Your task to perform on an android device: Open Wikipedia Image 0: 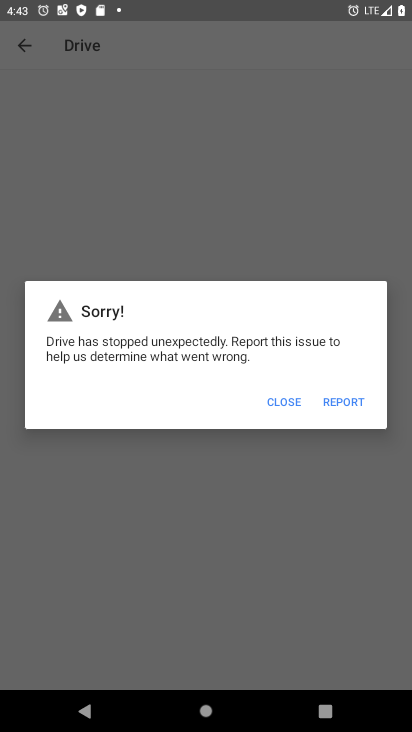
Step 0: press home button
Your task to perform on an android device: Open Wikipedia Image 1: 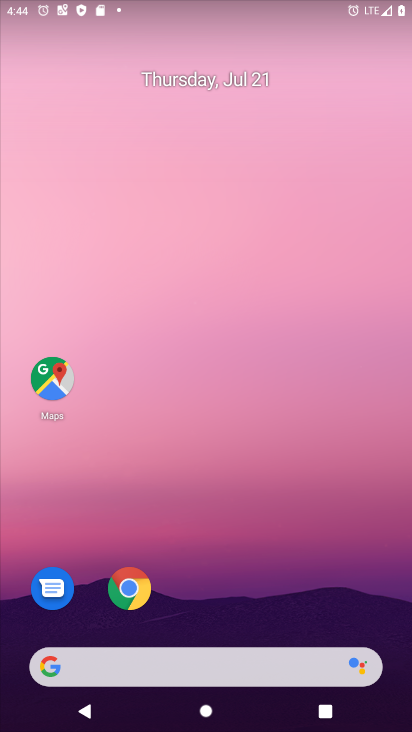
Step 1: click (111, 607)
Your task to perform on an android device: Open Wikipedia Image 2: 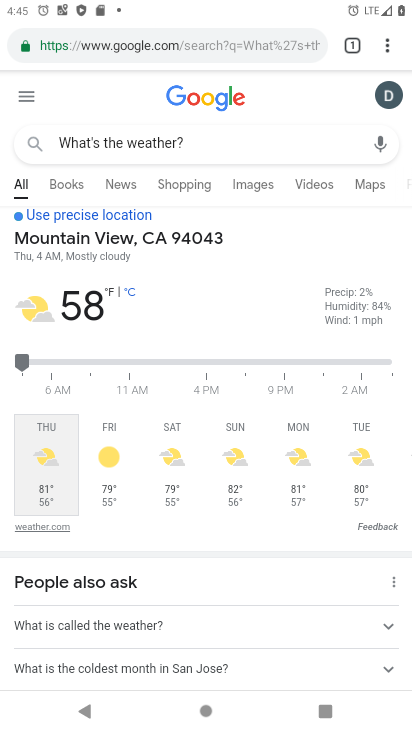
Step 2: click (194, 48)
Your task to perform on an android device: Open Wikipedia Image 3: 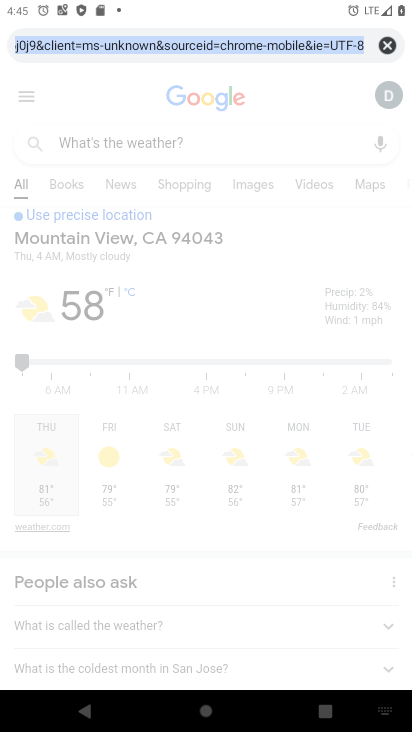
Step 3: type "Wikipedia"
Your task to perform on an android device: Open Wikipedia Image 4: 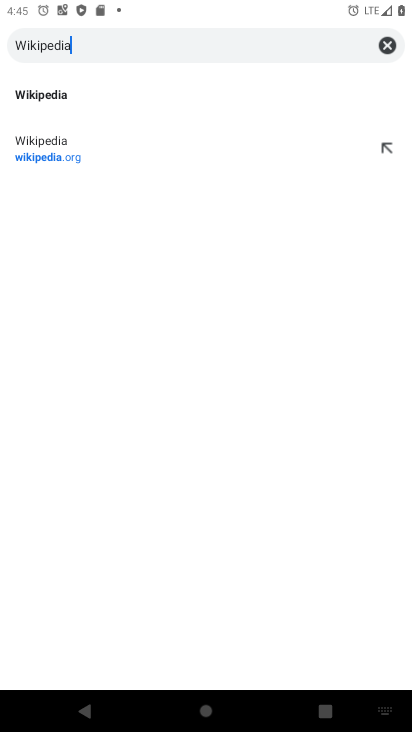
Step 4: type ""
Your task to perform on an android device: Open Wikipedia Image 5: 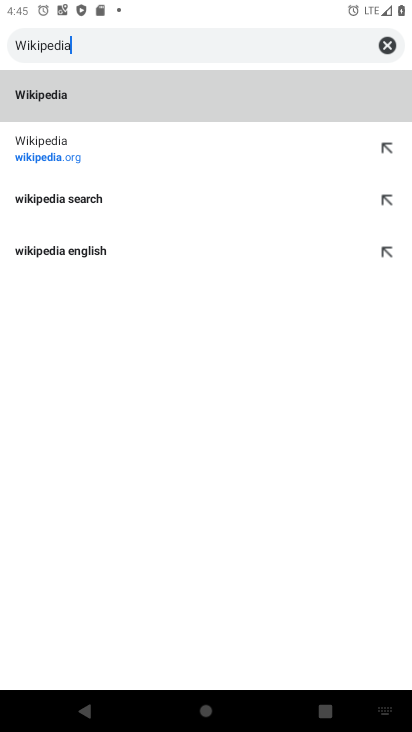
Step 5: click (20, 158)
Your task to perform on an android device: Open Wikipedia Image 6: 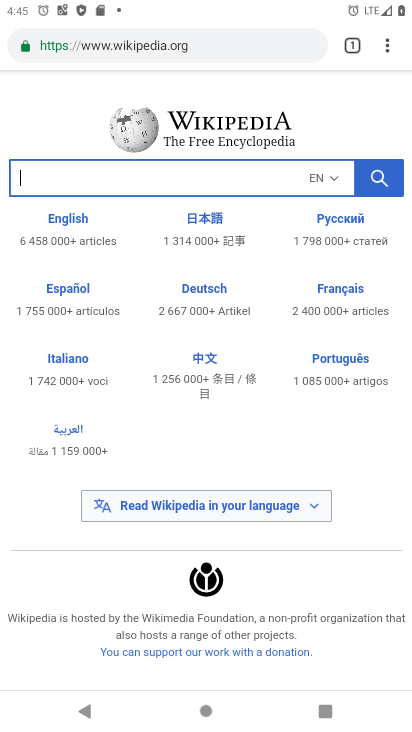
Step 6: task complete